Your task to perform on an android device: toggle location history Image 0: 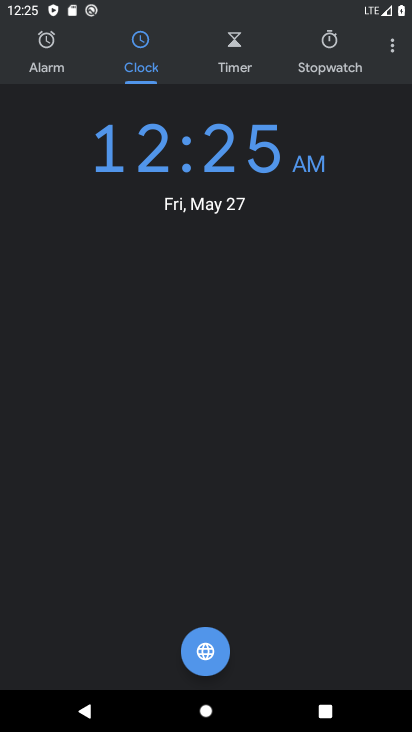
Step 0: press home button
Your task to perform on an android device: toggle location history Image 1: 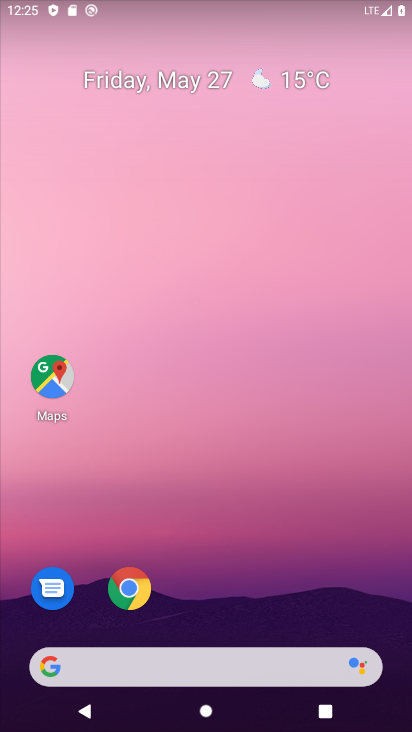
Step 1: drag from (388, 617) to (332, 115)
Your task to perform on an android device: toggle location history Image 2: 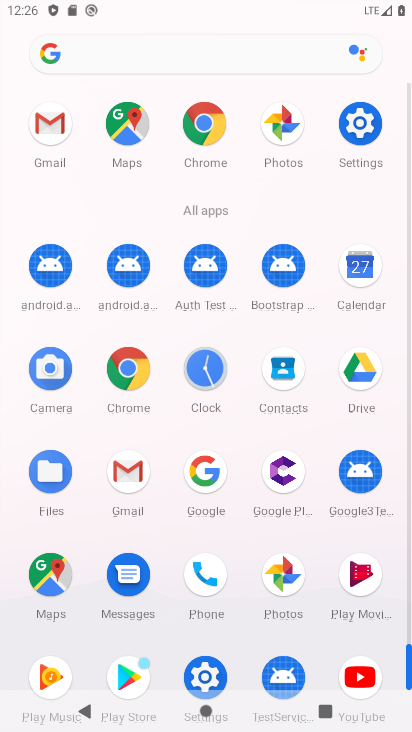
Step 2: click (50, 574)
Your task to perform on an android device: toggle location history Image 3: 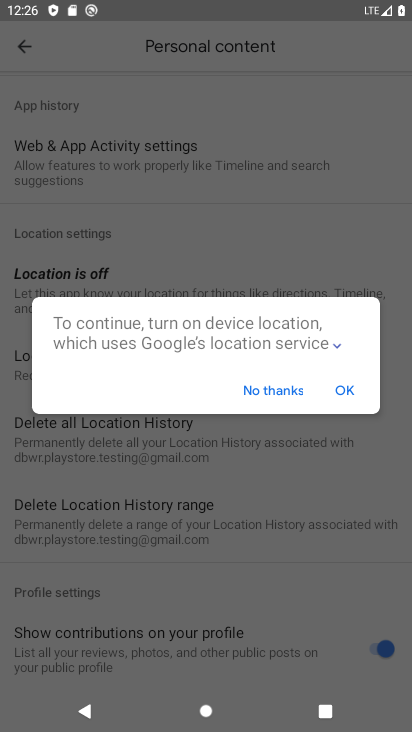
Step 3: click (344, 384)
Your task to perform on an android device: toggle location history Image 4: 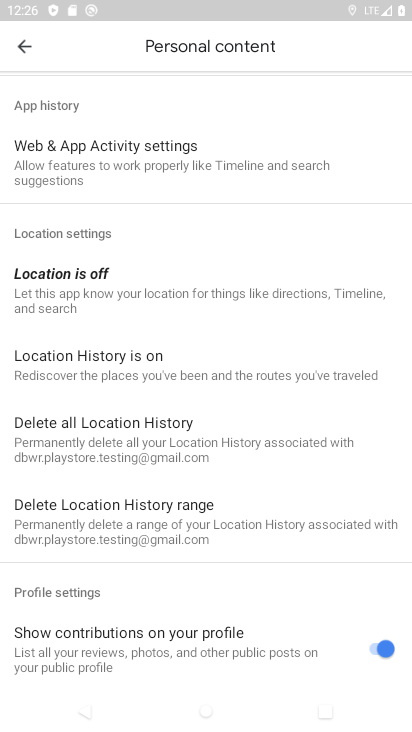
Step 4: click (87, 361)
Your task to perform on an android device: toggle location history Image 5: 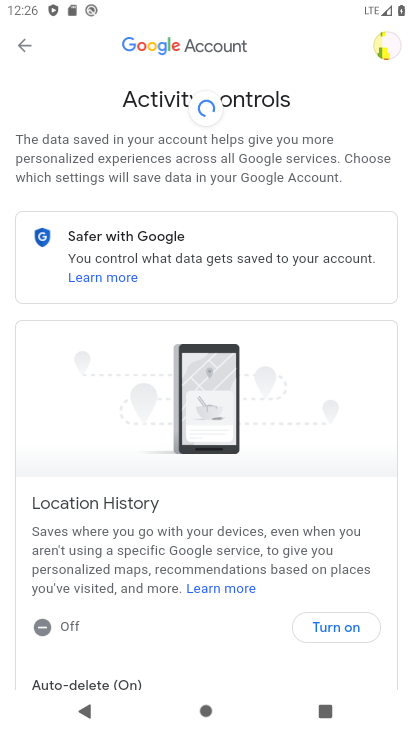
Step 5: click (335, 632)
Your task to perform on an android device: toggle location history Image 6: 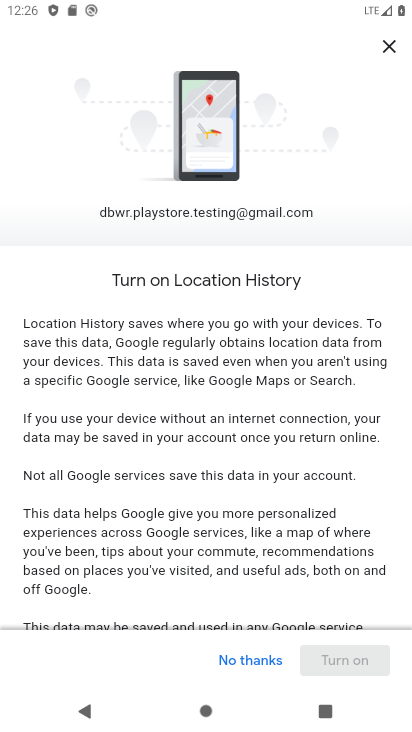
Step 6: drag from (328, 599) to (275, 147)
Your task to perform on an android device: toggle location history Image 7: 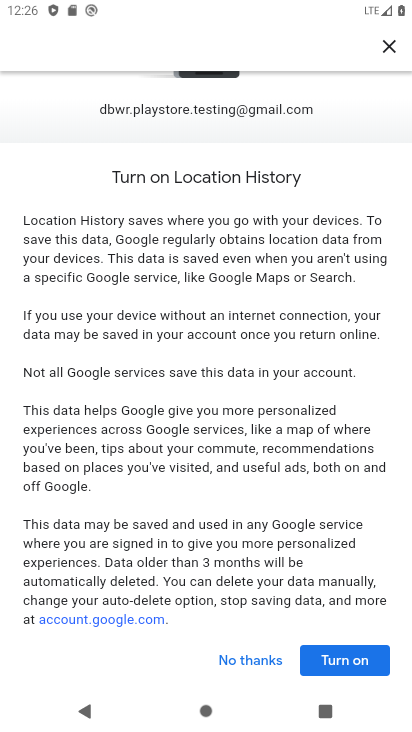
Step 7: click (347, 664)
Your task to perform on an android device: toggle location history Image 8: 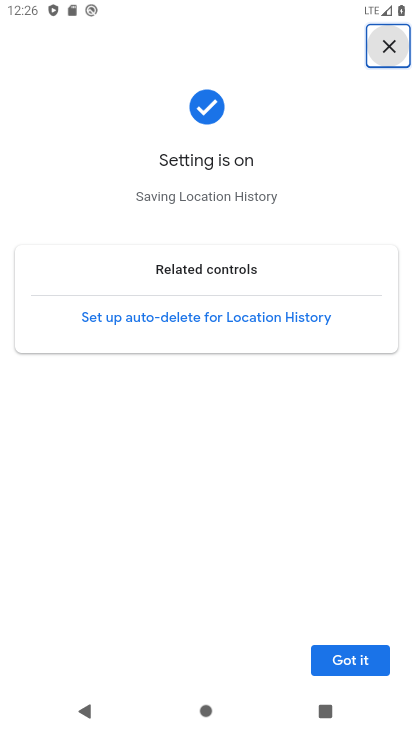
Step 8: click (343, 661)
Your task to perform on an android device: toggle location history Image 9: 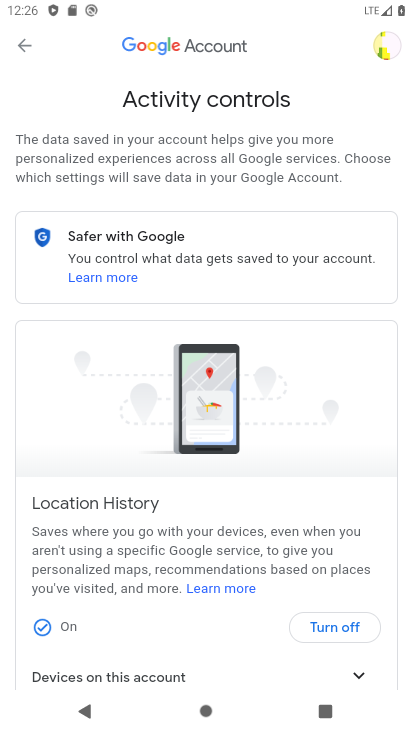
Step 9: task complete